Your task to perform on an android device: turn off priority inbox in the gmail app Image 0: 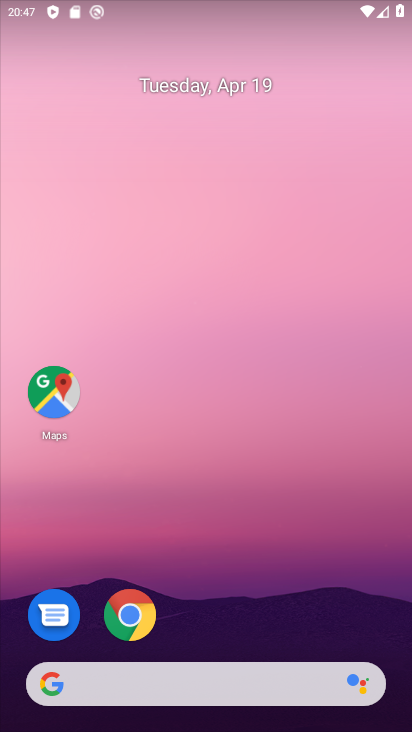
Step 0: drag from (198, 654) to (270, 214)
Your task to perform on an android device: turn off priority inbox in the gmail app Image 1: 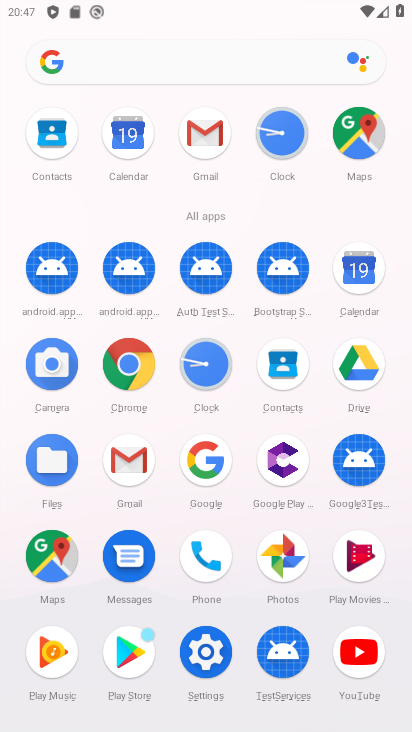
Step 1: click (132, 461)
Your task to perform on an android device: turn off priority inbox in the gmail app Image 2: 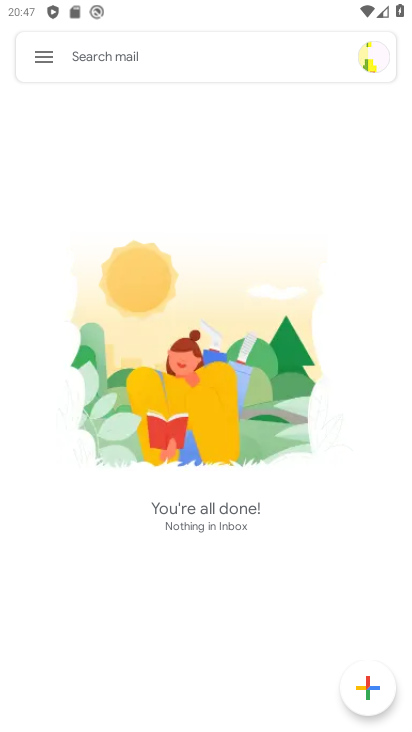
Step 2: click (47, 54)
Your task to perform on an android device: turn off priority inbox in the gmail app Image 3: 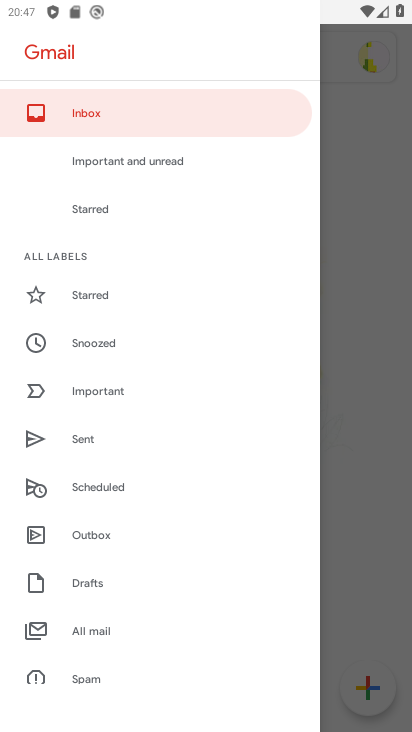
Step 3: drag from (106, 679) to (149, 354)
Your task to perform on an android device: turn off priority inbox in the gmail app Image 4: 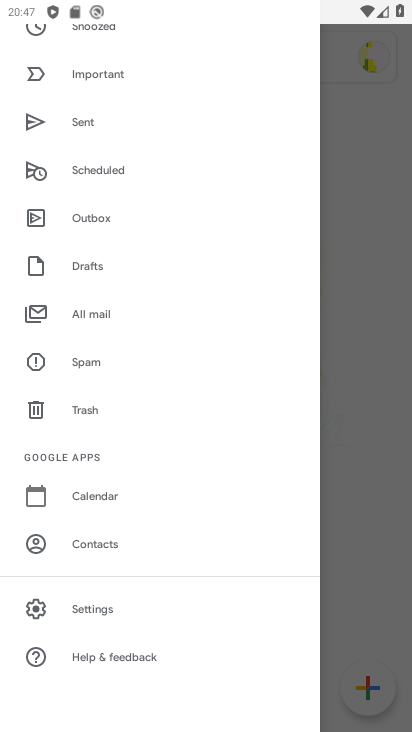
Step 4: click (95, 605)
Your task to perform on an android device: turn off priority inbox in the gmail app Image 5: 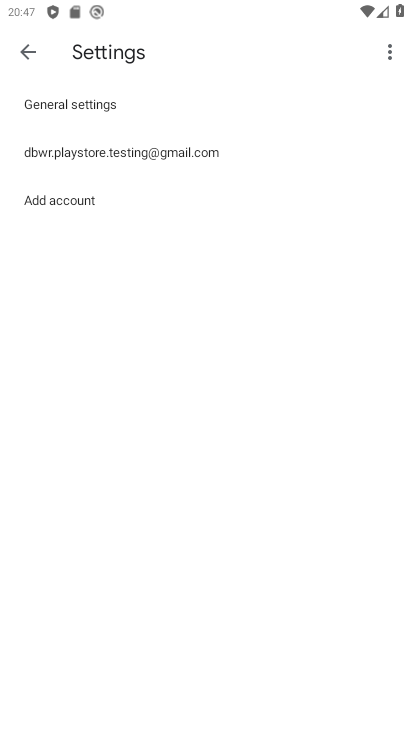
Step 5: click (105, 148)
Your task to perform on an android device: turn off priority inbox in the gmail app Image 6: 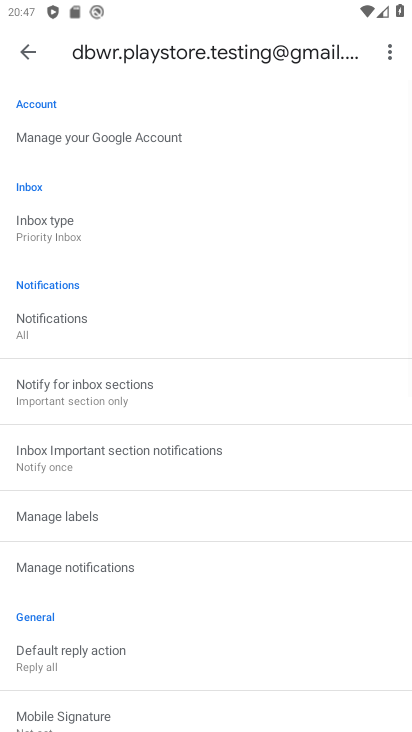
Step 6: click (53, 233)
Your task to perform on an android device: turn off priority inbox in the gmail app Image 7: 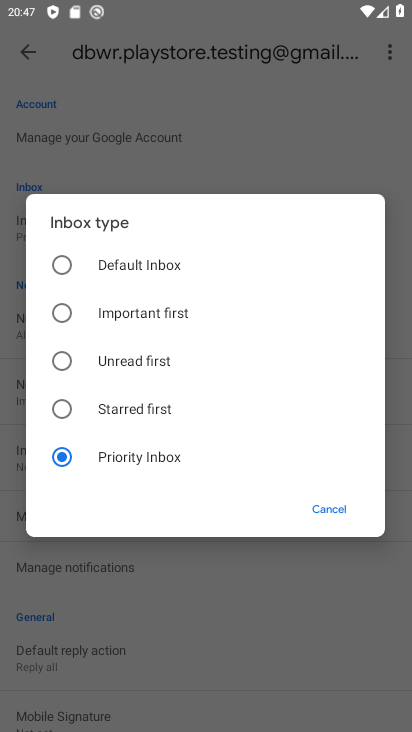
Step 7: click (65, 258)
Your task to perform on an android device: turn off priority inbox in the gmail app Image 8: 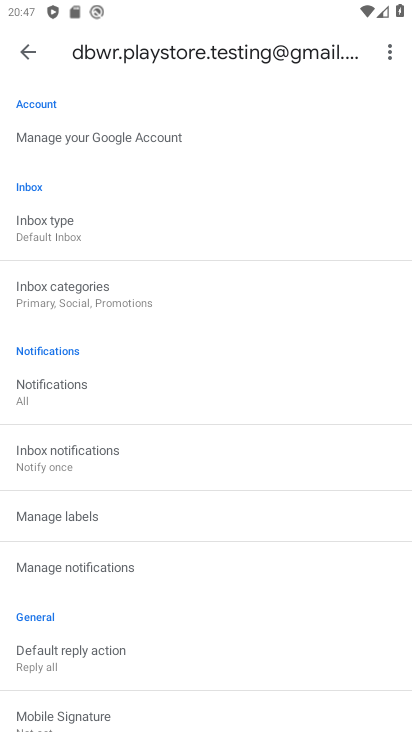
Step 8: task complete